Your task to perform on an android device: Go to network settings Image 0: 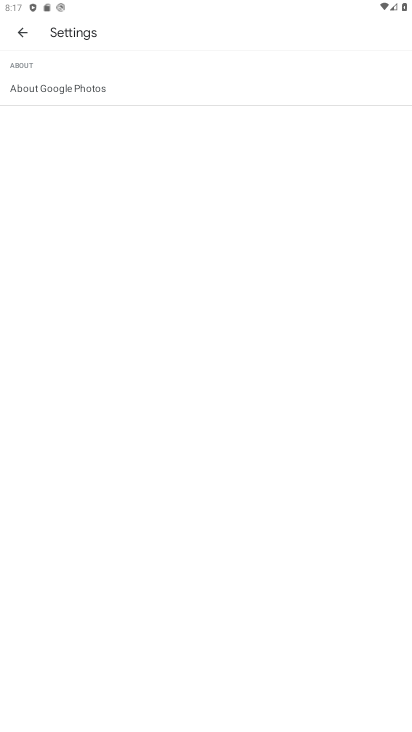
Step 0: press home button
Your task to perform on an android device: Go to network settings Image 1: 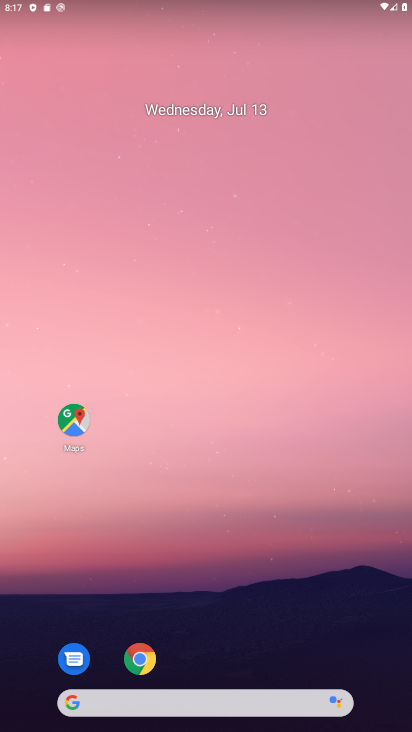
Step 1: drag from (83, 542) to (305, 48)
Your task to perform on an android device: Go to network settings Image 2: 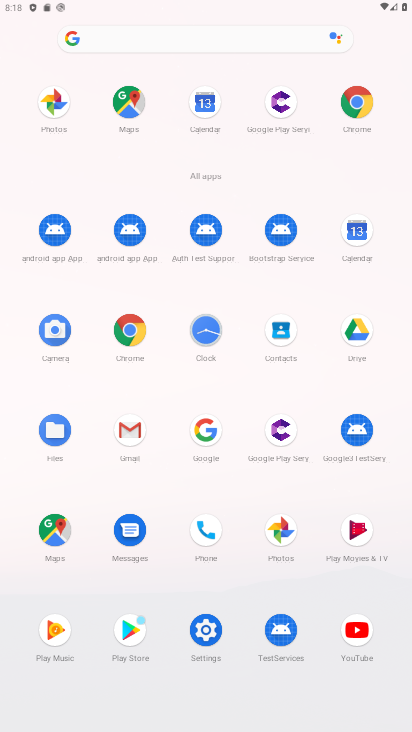
Step 2: click (203, 626)
Your task to perform on an android device: Go to network settings Image 3: 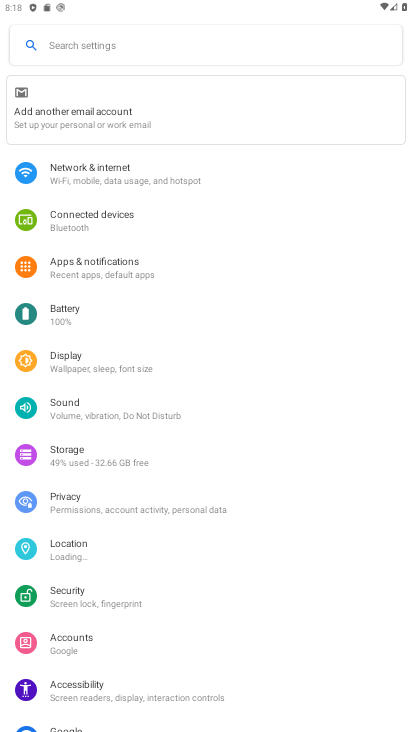
Step 3: click (117, 169)
Your task to perform on an android device: Go to network settings Image 4: 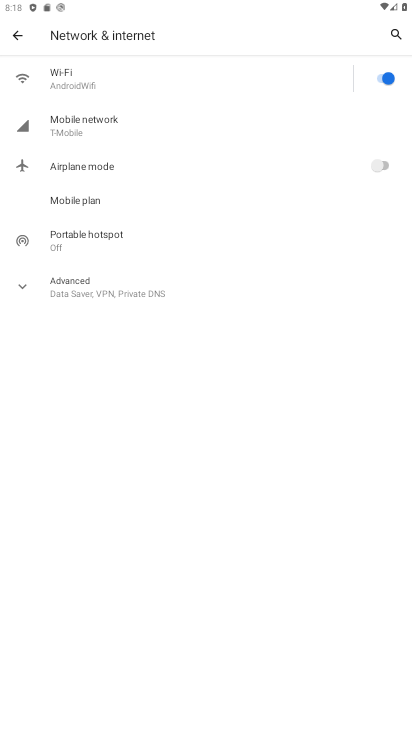
Step 4: click (81, 125)
Your task to perform on an android device: Go to network settings Image 5: 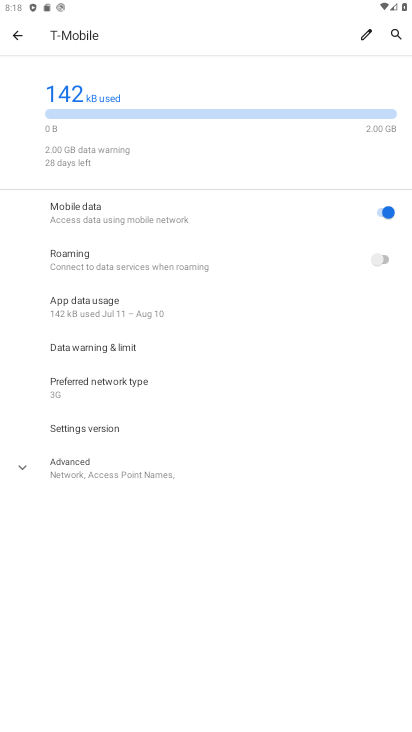
Step 5: task complete